Your task to perform on an android device: see creations saved in the google photos Image 0: 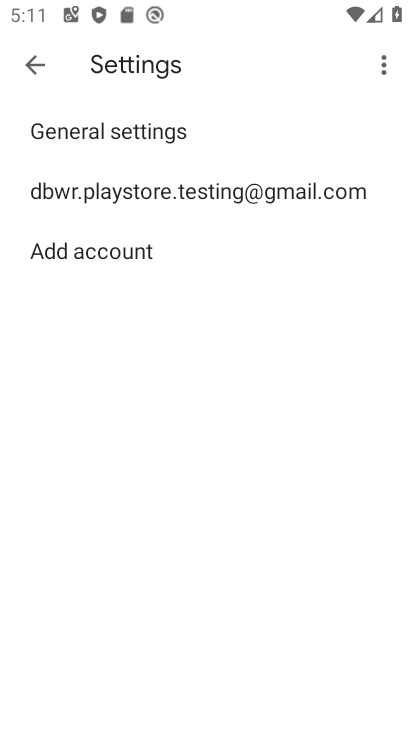
Step 0: press home button
Your task to perform on an android device: see creations saved in the google photos Image 1: 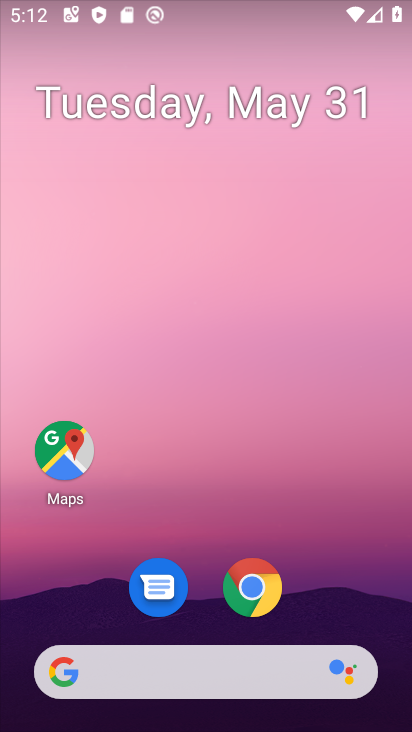
Step 1: drag from (194, 617) to (151, 20)
Your task to perform on an android device: see creations saved in the google photos Image 2: 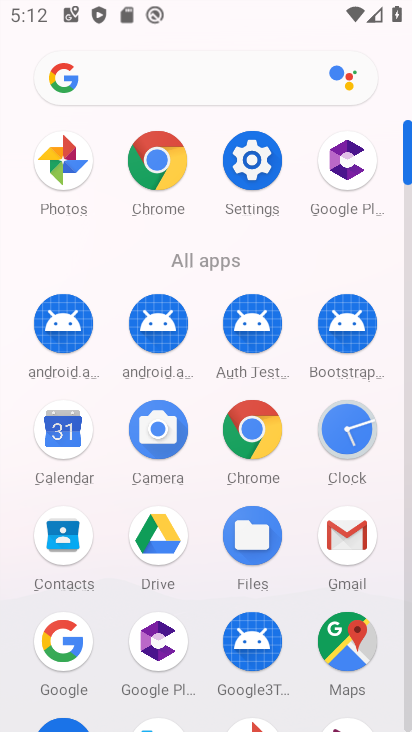
Step 2: click (54, 129)
Your task to perform on an android device: see creations saved in the google photos Image 3: 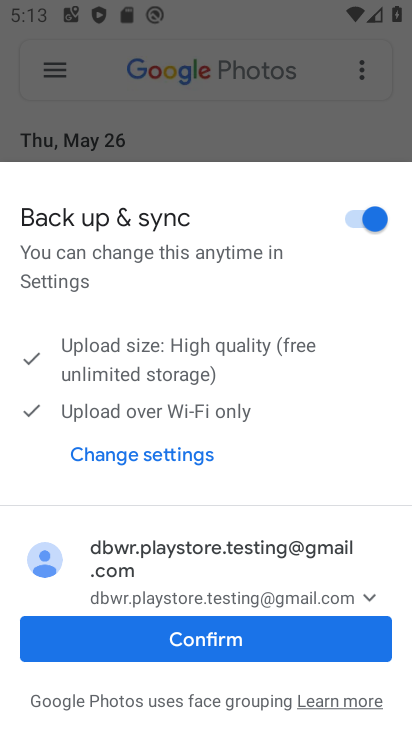
Step 3: click (222, 647)
Your task to perform on an android device: see creations saved in the google photos Image 4: 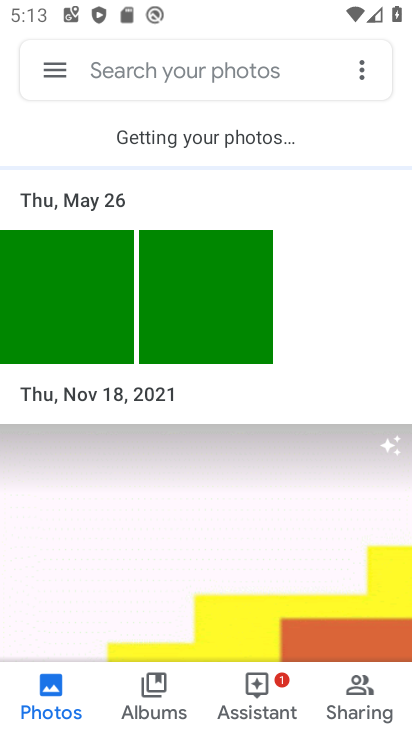
Step 4: task complete